Your task to perform on an android device: clear history in the chrome app Image 0: 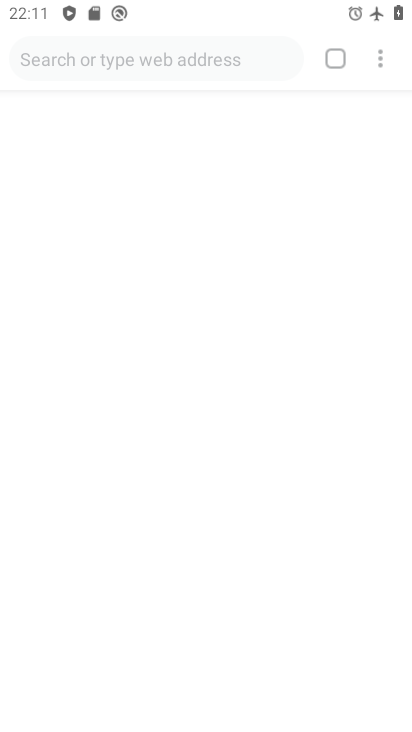
Step 0: click (204, 687)
Your task to perform on an android device: clear history in the chrome app Image 1: 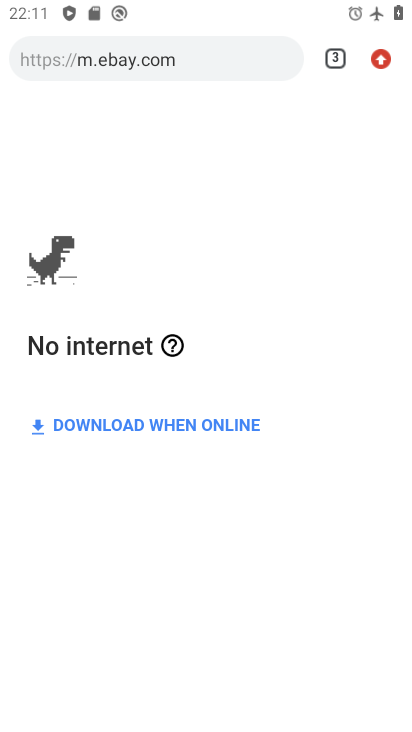
Step 1: press home button
Your task to perform on an android device: clear history in the chrome app Image 2: 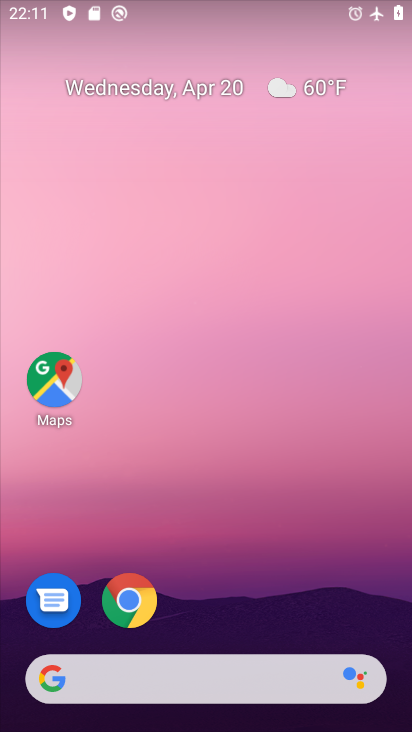
Step 2: click (139, 607)
Your task to perform on an android device: clear history in the chrome app Image 3: 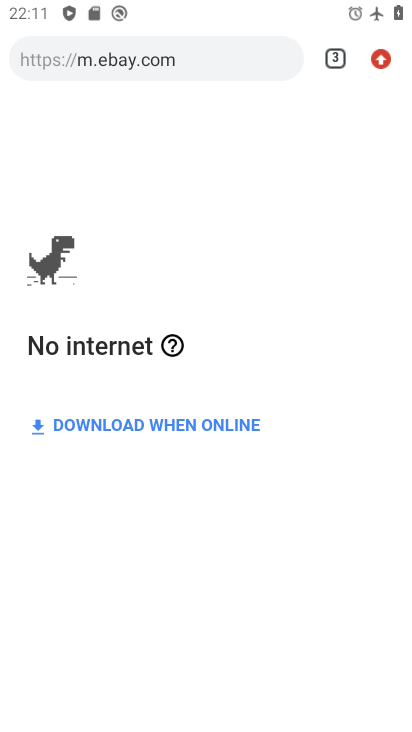
Step 3: task complete